Your task to perform on an android device: change notification settings in the gmail app Image 0: 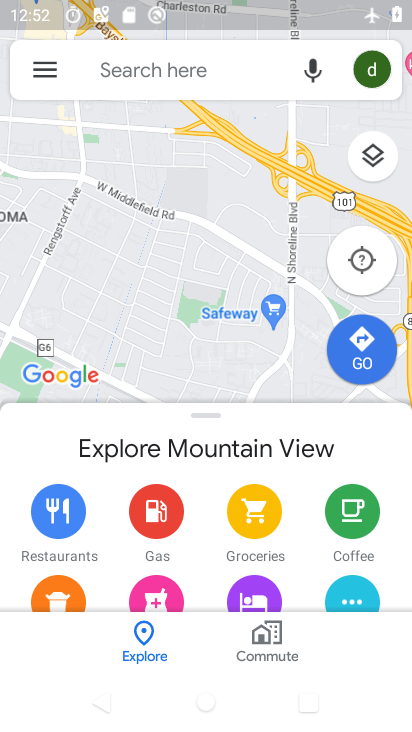
Step 0: press home button
Your task to perform on an android device: change notification settings in the gmail app Image 1: 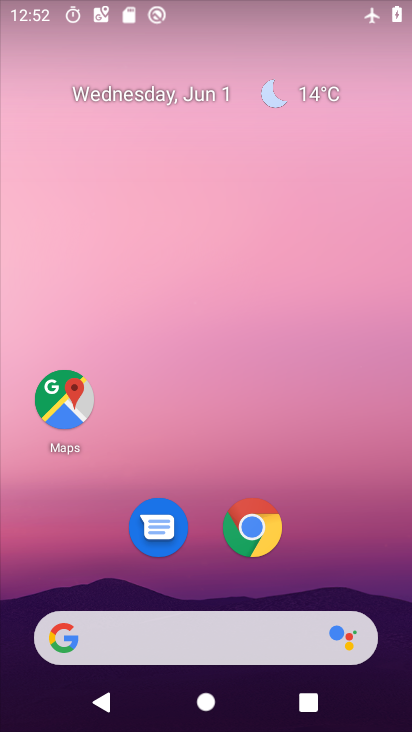
Step 1: drag from (355, 538) to (351, 13)
Your task to perform on an android device: change notification settings in the gmail app Image 2: 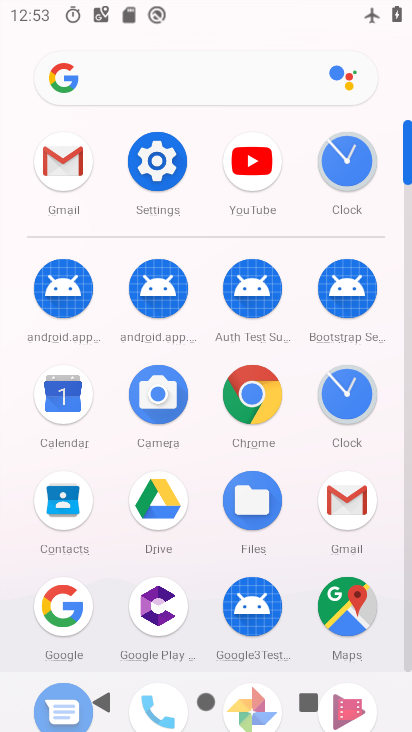
Step 2: click (63, 179)
Your task to perform on an android device: change notification settings in the gmail app Image 3: 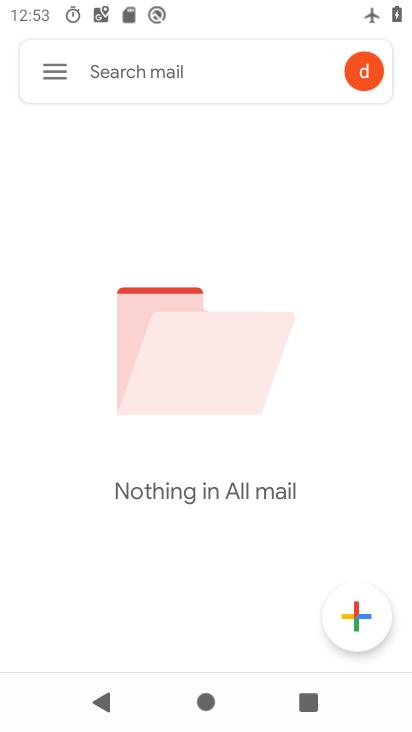
Step 3: click (49, 75)
Your task to perform on an android device: change notification settings in the gmail app Image 4: 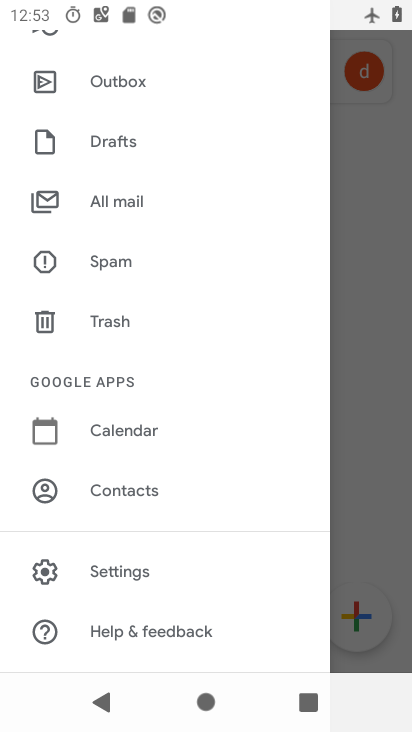
Step 4: click (105, 573)
Your task to perform on an android device: change notification settings in the gmail app Image 5: 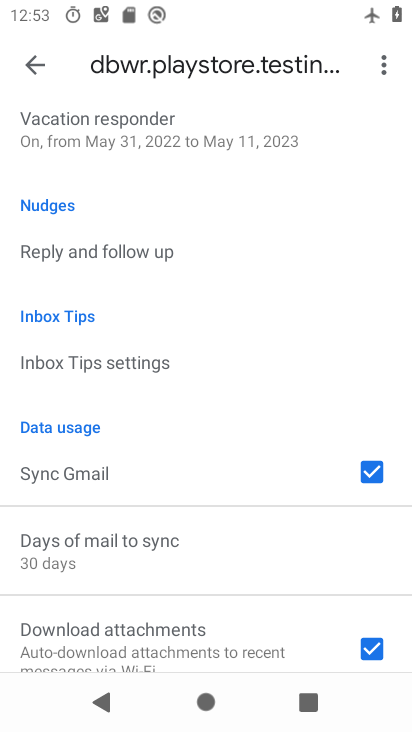
Step 5: click (36, 69)
Your task to perform on an android device: change notification settings in the gmail app Image 6: 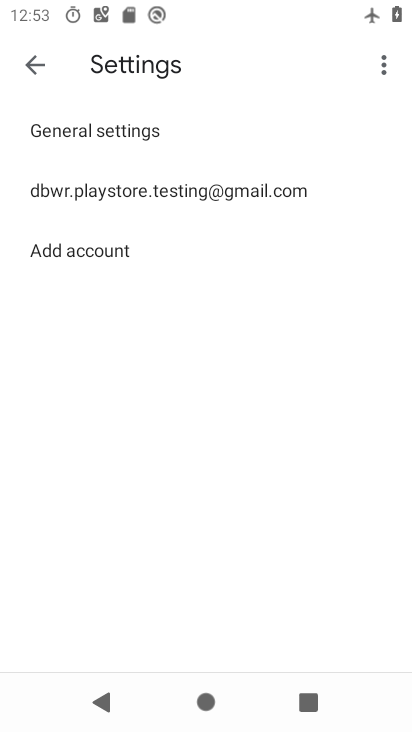
Step 6: click (75, 136)
Your task to perform on an android device: change notification settings in the gmail app Image 7: 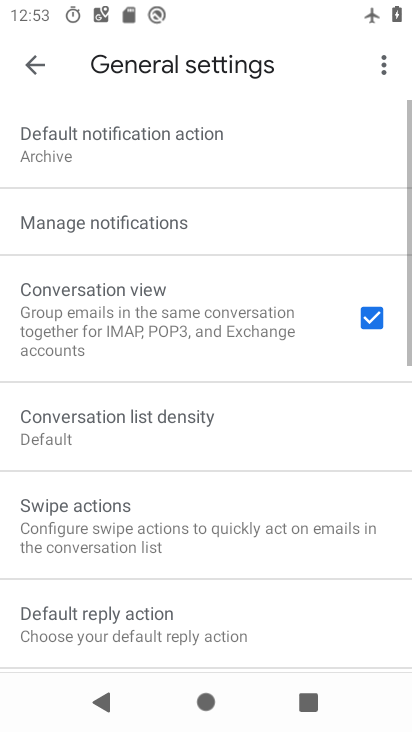
Step 7: click (75, 225)
Your task to perform on an android device: change notification settings in the gmail app Image 8: 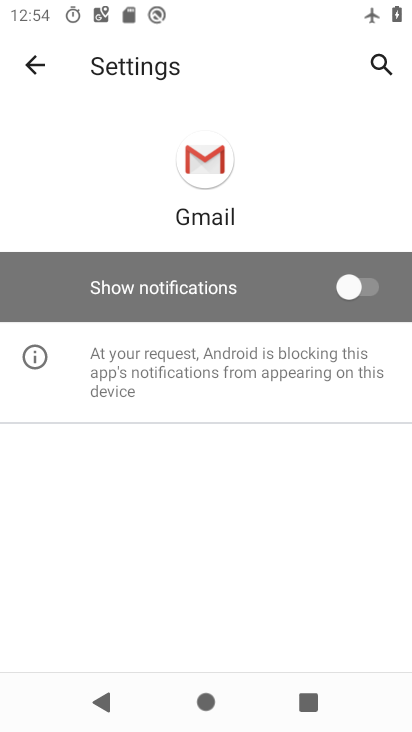
Step 8: click (352, 288)
Your task to perform on an android device: change notification settings in the gmail app Image 9: 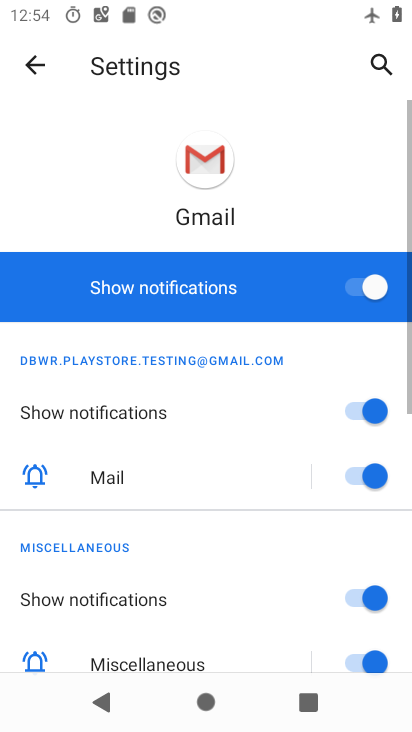
Step 9: task complete